Your task to perform on an android device: change the clock display to digital Image 0: 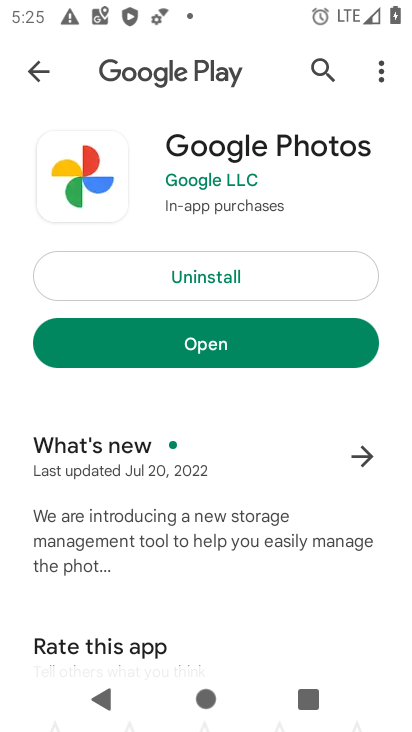
Step 0: press home button
Your task to perform on an android device: change the clock display to digital Image 1: 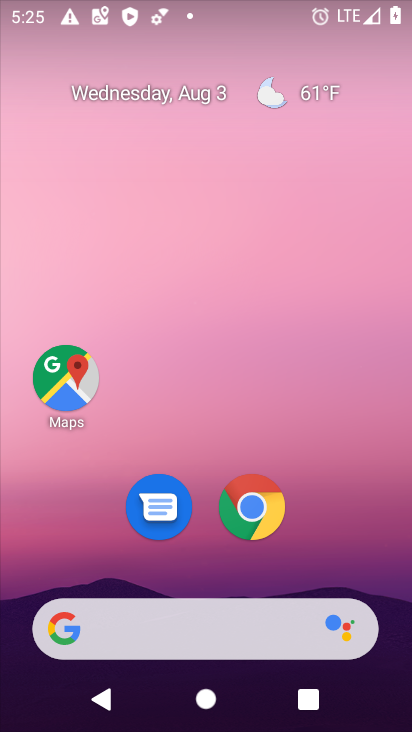
Step 1: drag from (346, 501) to (374, 19)
Your task to perform on an android device: change the clock display to digital Image 2: 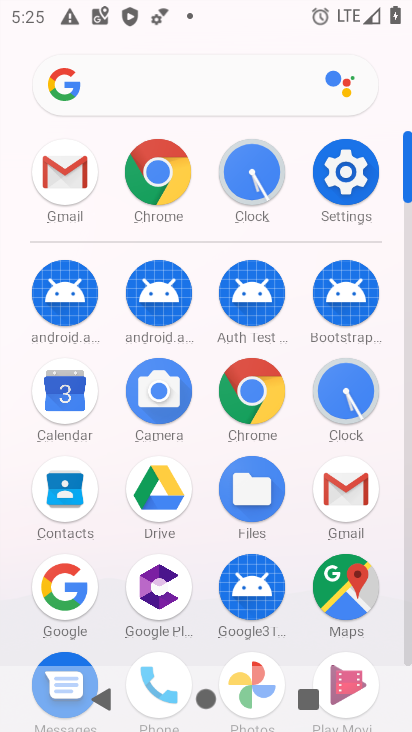
Step 2: click (328, 369)
Your task to perform on an android device: change the clock display to digital Image 3: 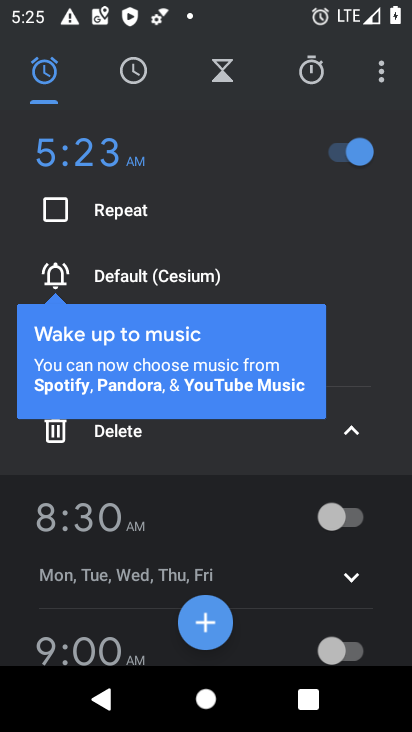
Step 3: click (384, 68)
Your task to perform on an android device: change the clock display to digital Image 4: 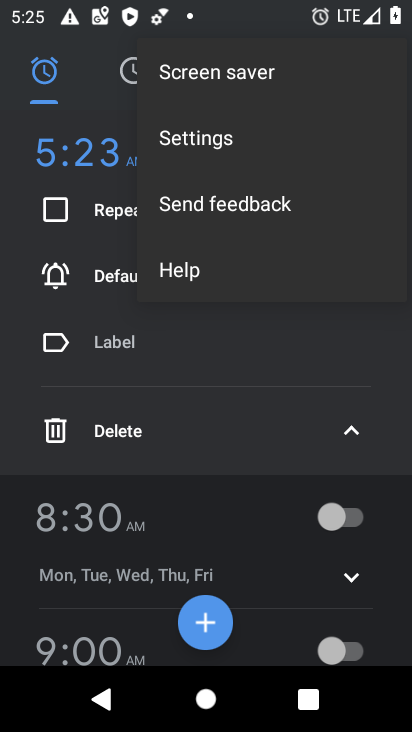
Step 4: click (199, 138)
Your task to perform on an android device: change the clock display to digital Image 5: 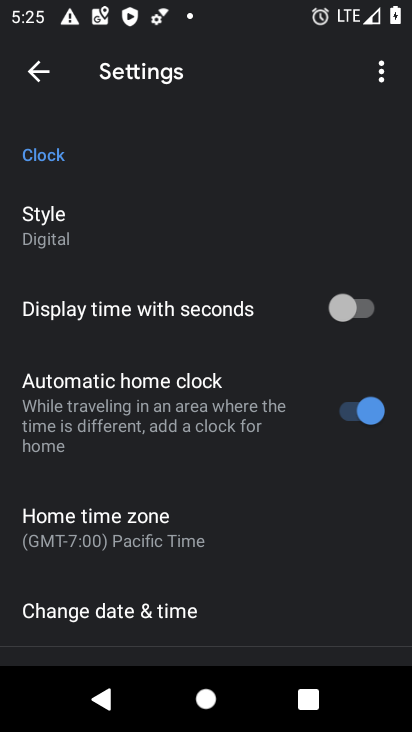
Step 5: task complete